Your task to perform on an android device: Open Android settings Image 0: 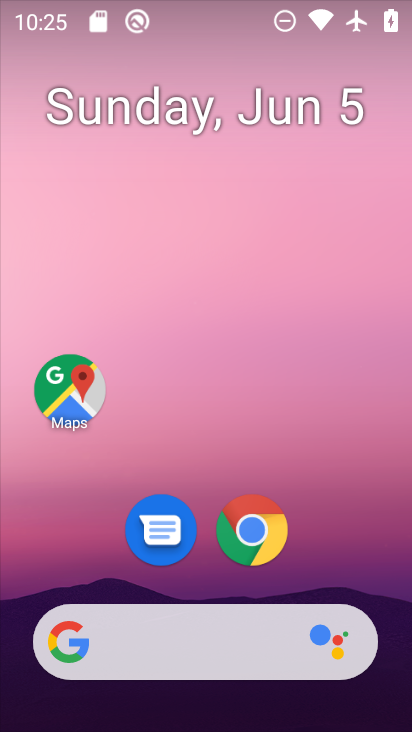
Step 0: drag from (396, 641) to (263, 90)
Your task to perform on an android device: Open Android settings Image 1: 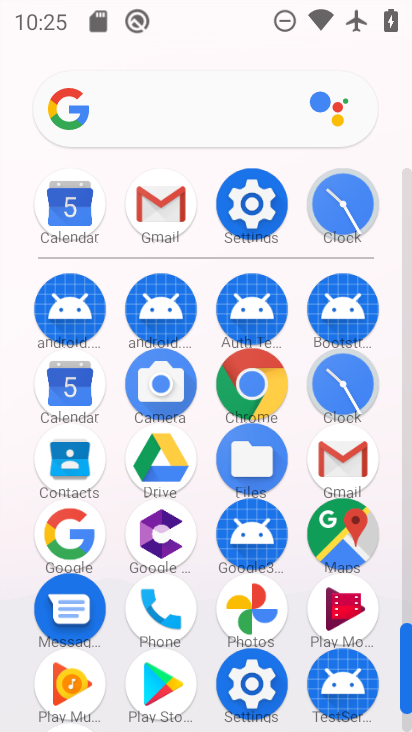
Step 1: click (408, 605)
Your task to perform on an android device: Open Android settings Image 2: 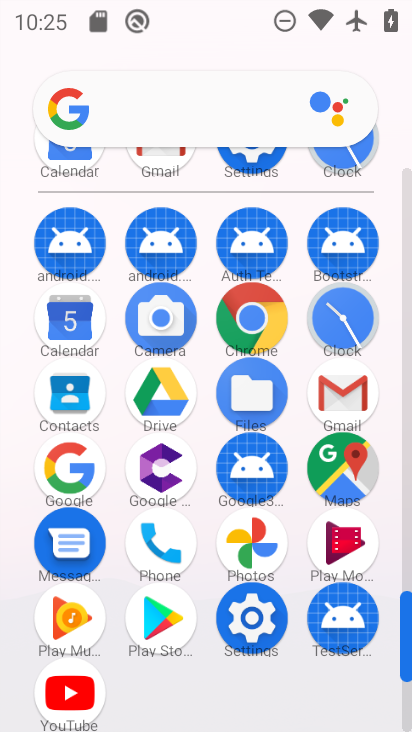
Step 2: click (253, 621)
Your task to perform on an android device: Open Android settings Image 3: 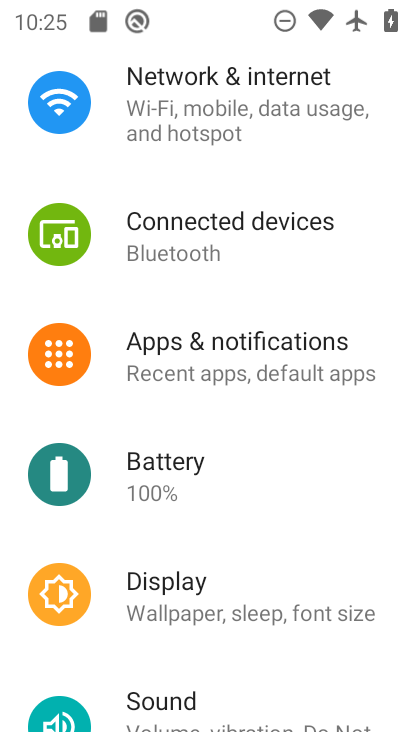
Step 3: drag from (382, 663) to (315, 267)
Your task to perform on an android device: Open Android settings Image 4: 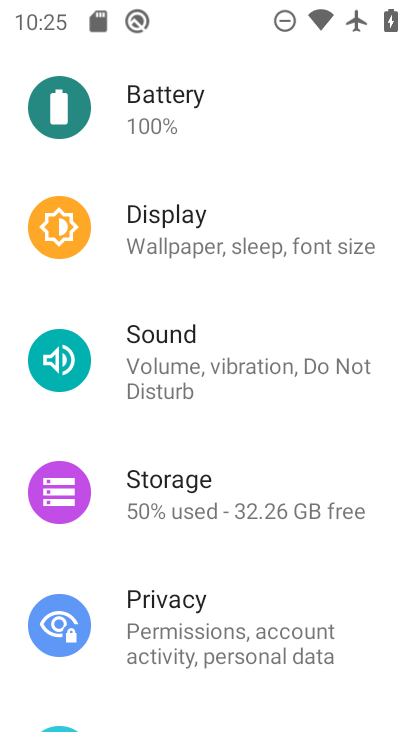
Step 4: drag from (342, 628) to (266, 140)
Your task to perform on an android device: Open Android settings Image 5: 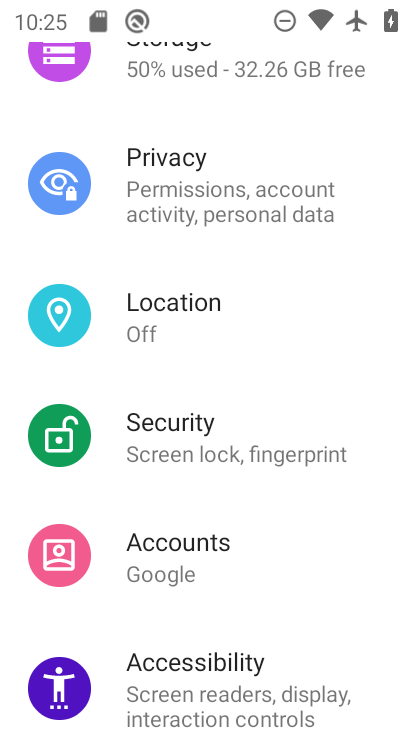
Step 5: drag from (340, 624) to (299, 185)
Your task to perform on an android device: Open Android settings Image 6: 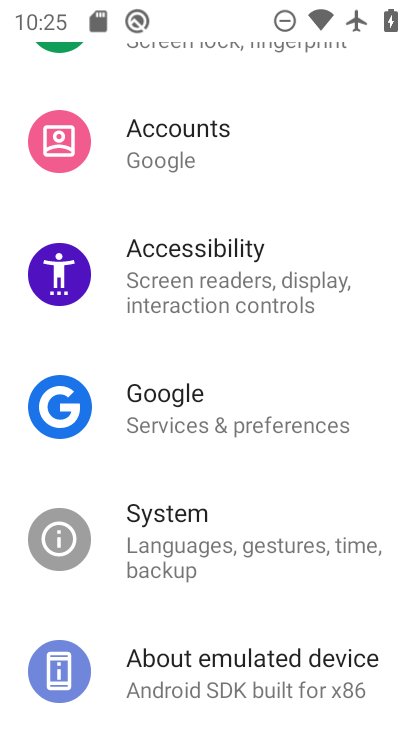
Step 6: click (216, 677)
Your task to perform on an android device: Open Android settings Image 7: 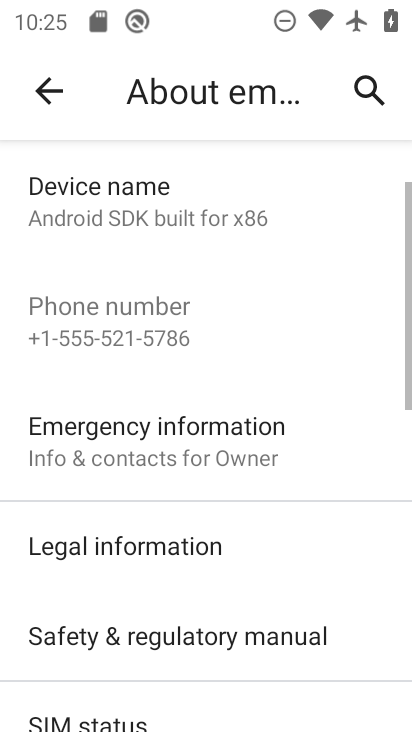
Step 7: task complete